Your task to perform on an android device: allow notifications from all sites in the chrome app Image 0: 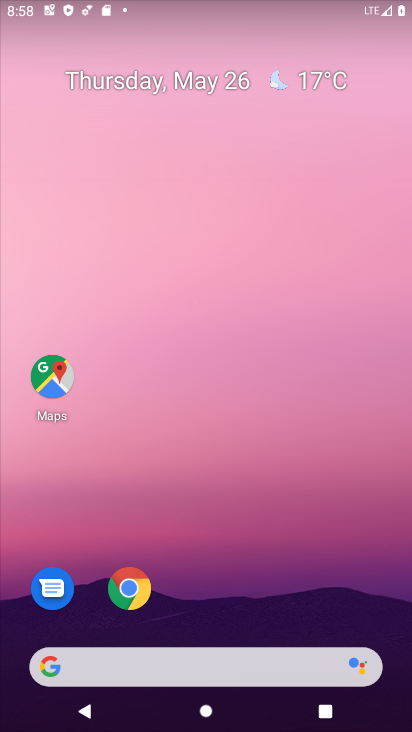
Step 0: click (131, 587)
Your task to perform on an android device: allow notifications from all sites in the chrome app Image 1: 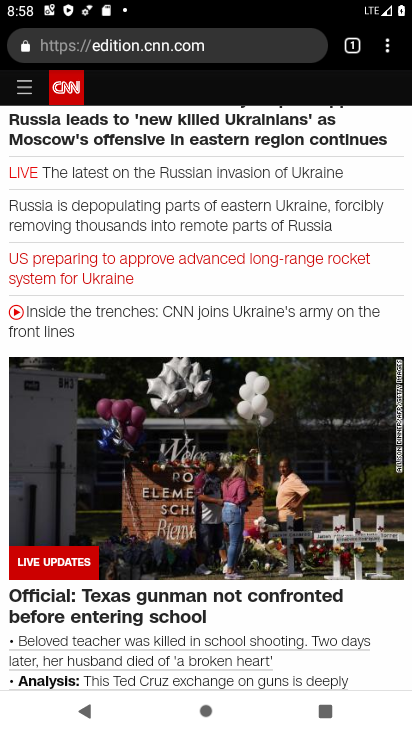
Step 1: click (389, 49)
Your task to perform on an android device: allow notifications from all sites in the chrome app Image 2: 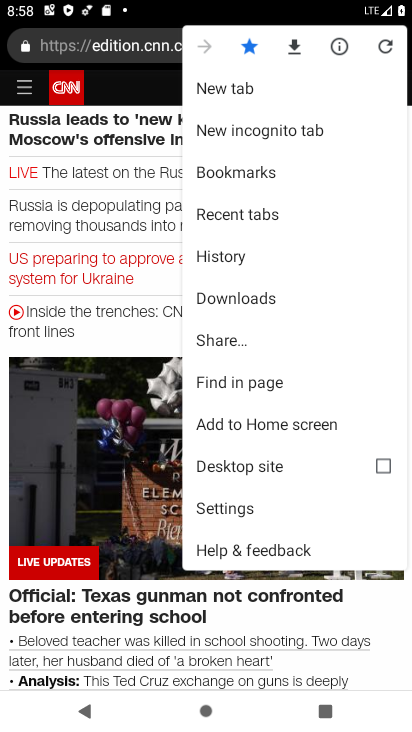
Step 2: click (236, 507)
Your task to perform on an android device: allow notifications from all sites in the chrome app Image 3: 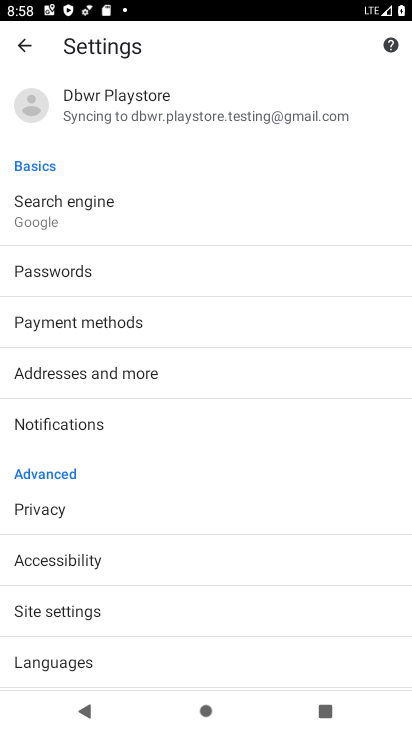
Step 3: click (73, 612)
Your task to perform on an android device: allow notifications from all sites in the chrome app Image 4: 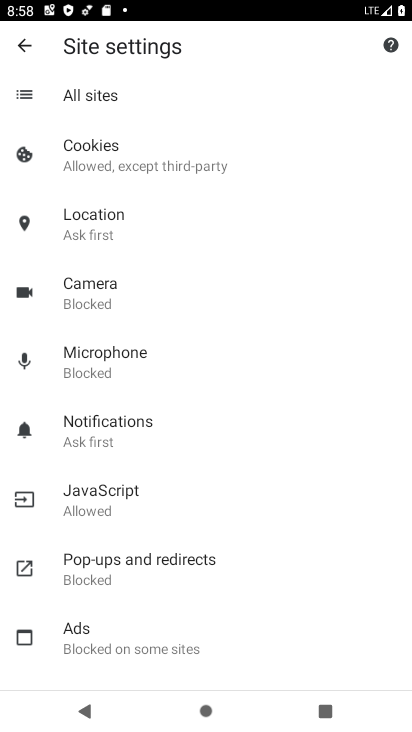
Step 4: click (89, 446)
Your task to perform on an android device: allow notifications from all sites in the chrome app Image 5: 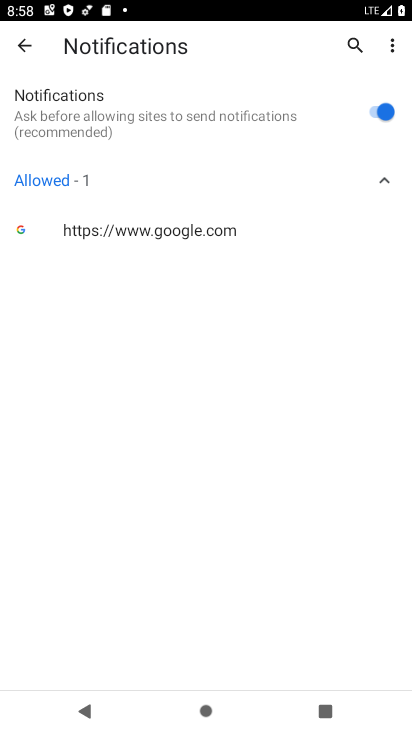
Step 5: task complete